Your task to perform on an android device: toggle javascript in the chrome app Image 0: 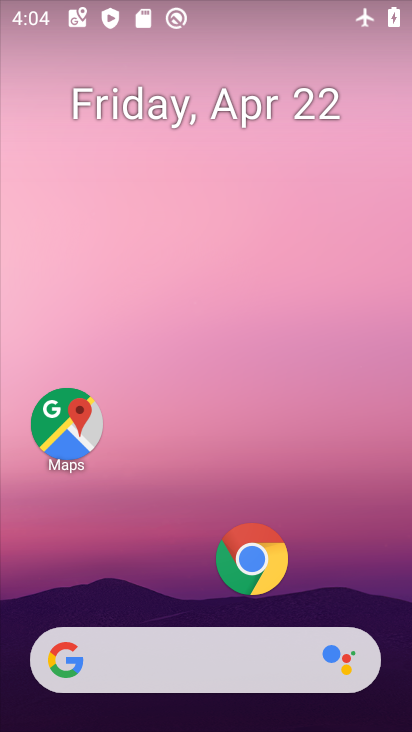
Step 0: click (244, 550)
Your task to perform on an android device: toggle javascript in the chrome app Image 1: 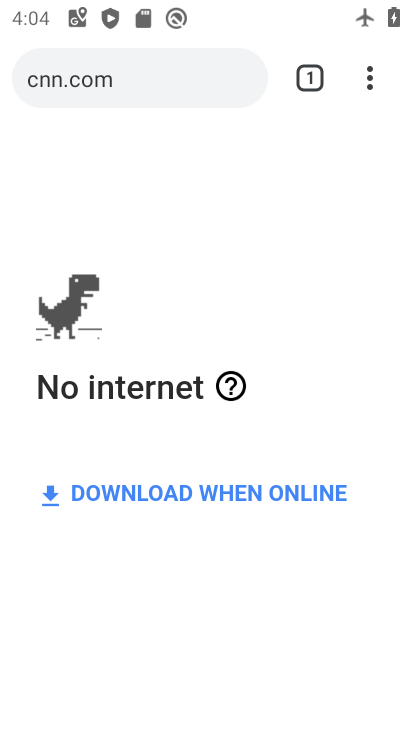
Step 1: click (374, 80)
Your task to perform on an android device: toggle javascript in the chrome app Image 2: 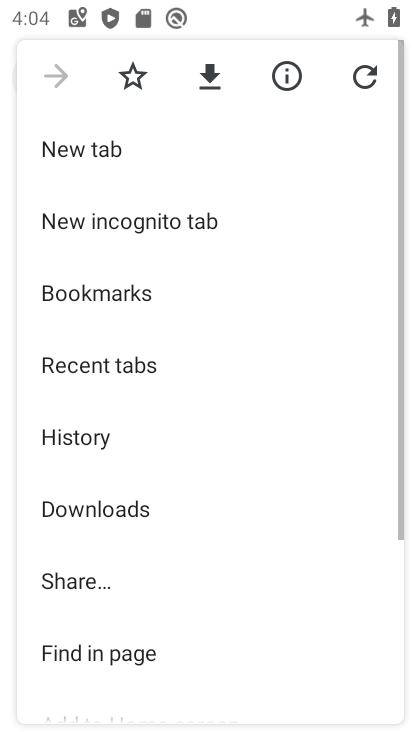
Step 2: drag from (126, 586) to (166, 288)
Your task to perform on an android device: toggle javascript in the chrome app Image 3: 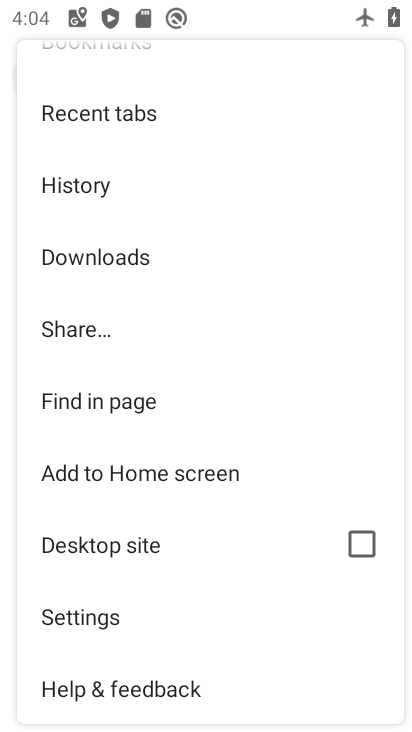
Step 3: click (99, 627)
Your task to perform on an android device: toggle javascript in the chrome app Image 4: 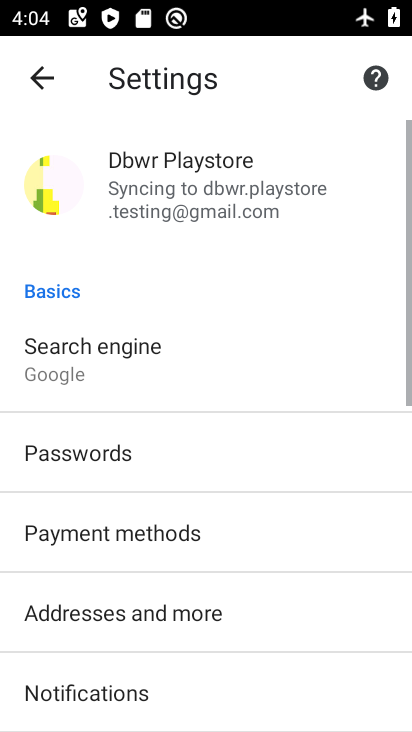
Step 4: drag from (113, 570) to (165, 337)
Your task to perform on an android device: toggle javascript in the chrome app Image 5: 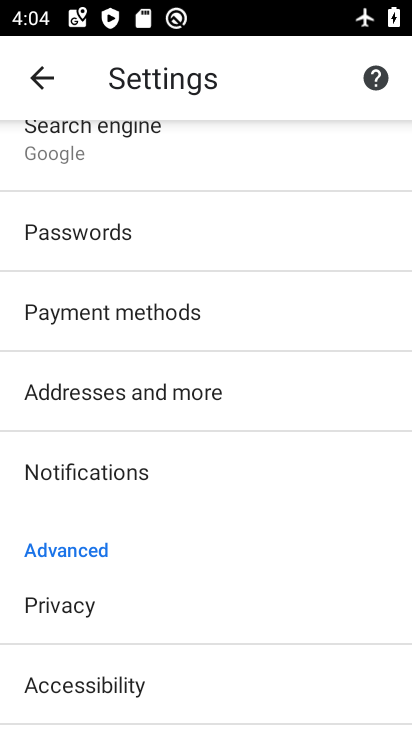
Step 5: drag from (50, 626) to (134, 157)
Your task to perform on an android device: toggle javascript in the chrome app Image 6: 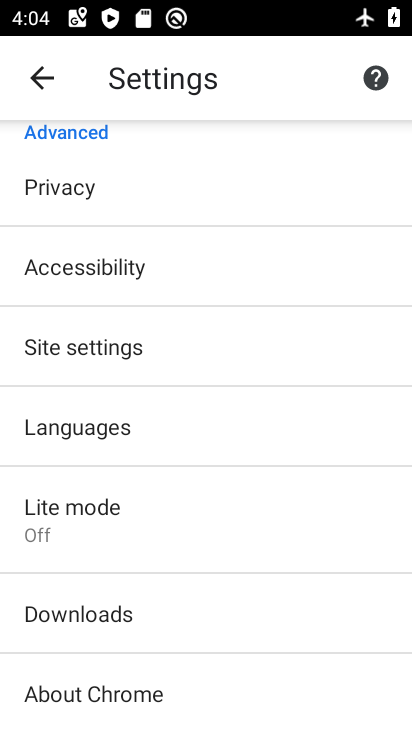
Step 6: click (115, 352)
Your task to perform on an android device: toggle javascript in the chrome app Image 7: 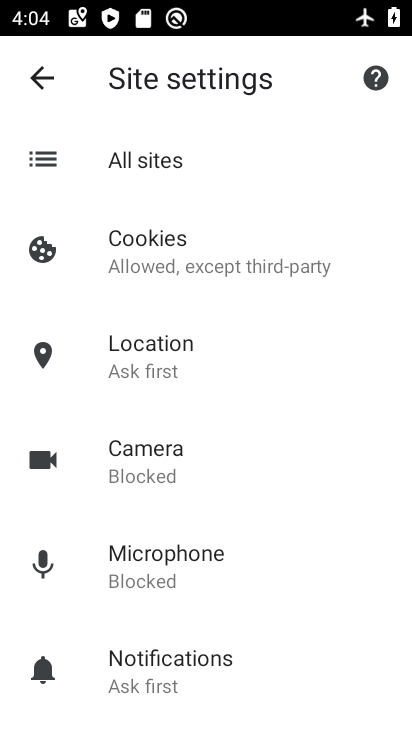
Step 7: drag from (133, 662) to (178, 327)
Your task to perform on an android device: toggle javascript in the chrome app Image 8: 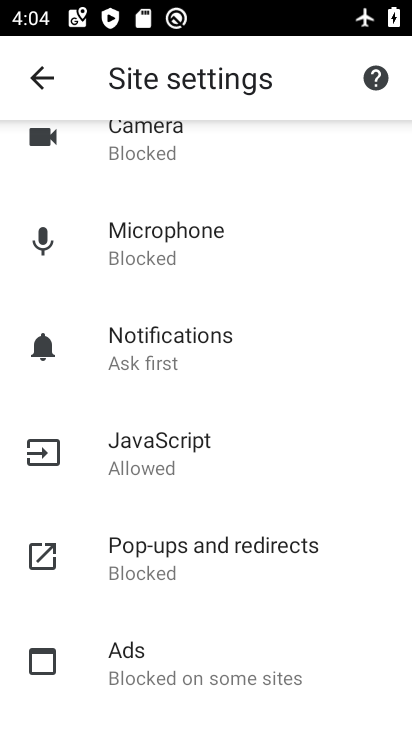
Step 8: click (153, 463)
Your task to perform on an android device: toggle javascript in the chrome app Image 9: 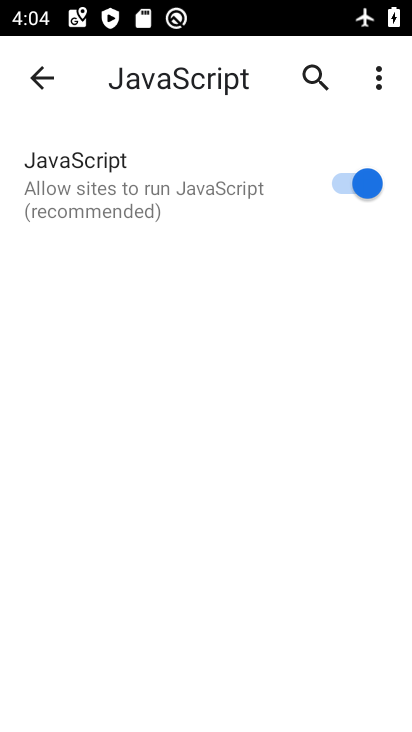
Step 9: click (335, 185)
Your task to perform on an android device: toggle javascript in the chrome app Image 10: 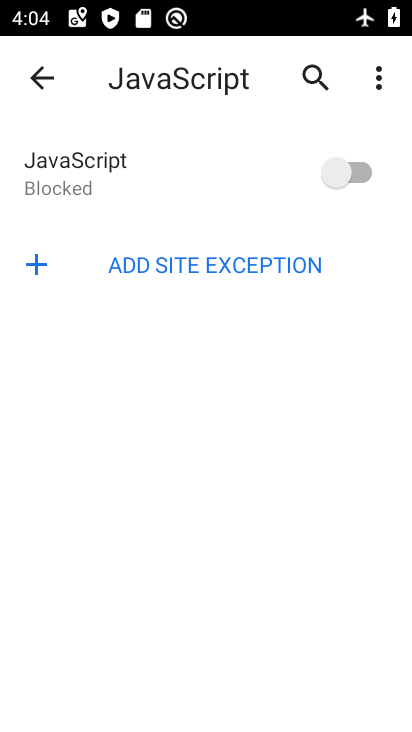
Step 10: task complete